Your task to perform on an android device: turn on airplane mode Image 0: 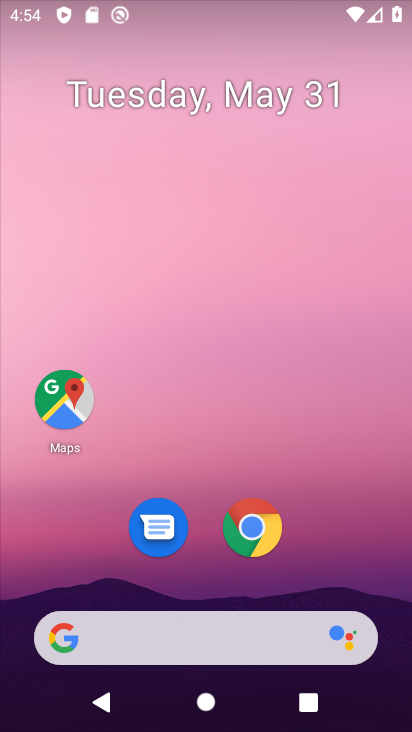
Step 0: drag from (326, 535) to (326, 74)
Your task to perform on an android device: turn on airplane mode Image 1: 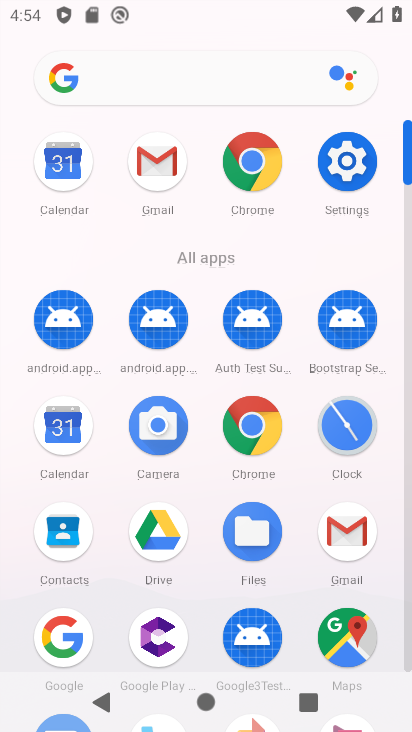
Step 1: click (355, 163)
Your task to perform on an android device: turn on airplane mode Image 2: 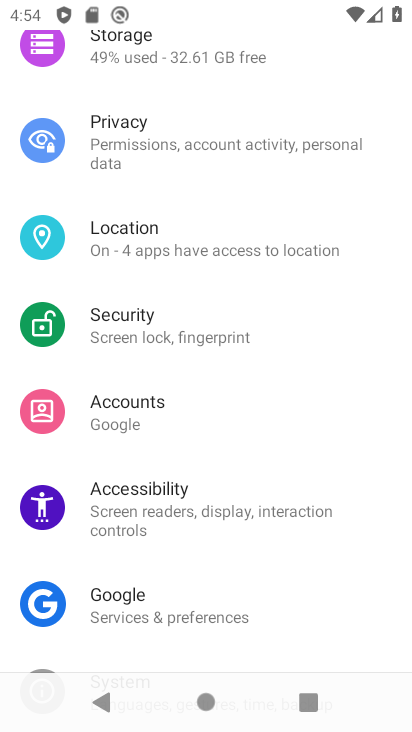
Step 2: press home button
Your task to perform on an android device: turn on airplane mode Image 3: 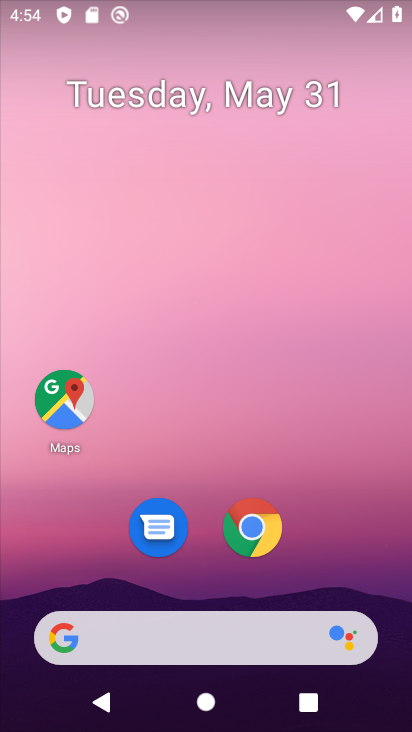
Step 3: drag from (302, 7) to (261, 448)
Your task to perform on an android device: turn on airplane mode Image 4: 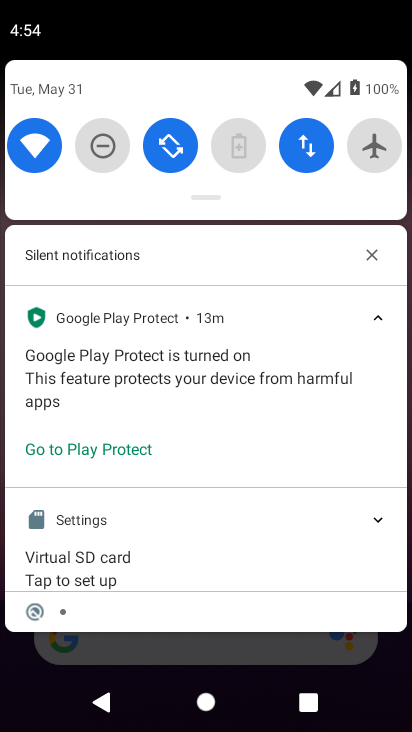
Step 4: drag from (295, 203) to (262, 569)
Your task to perform on an android device: turn on airplane mode Image 5: 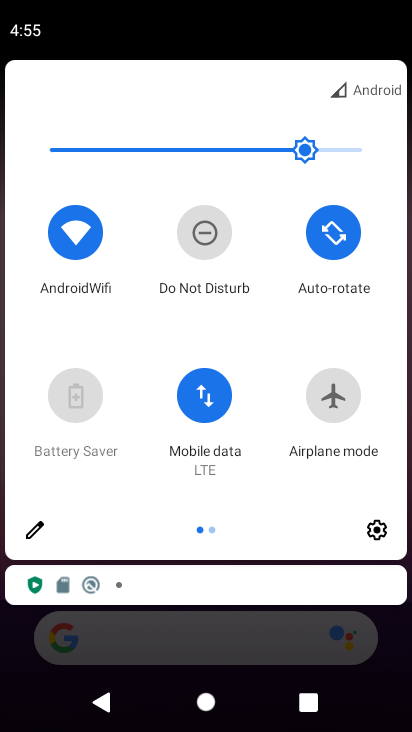
Step 5: click (341, 402)
Your task to perform on an android device: turn on airplane mode Image 6: 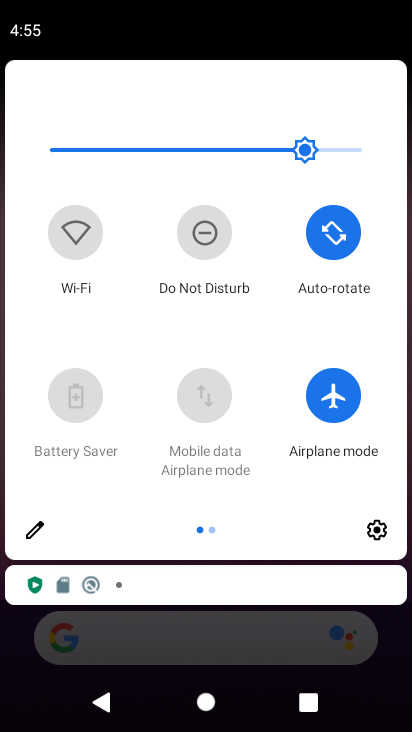
Step 6: task complete